Your task to perform on an android device: see sites visited before in the chrome app Image 0: 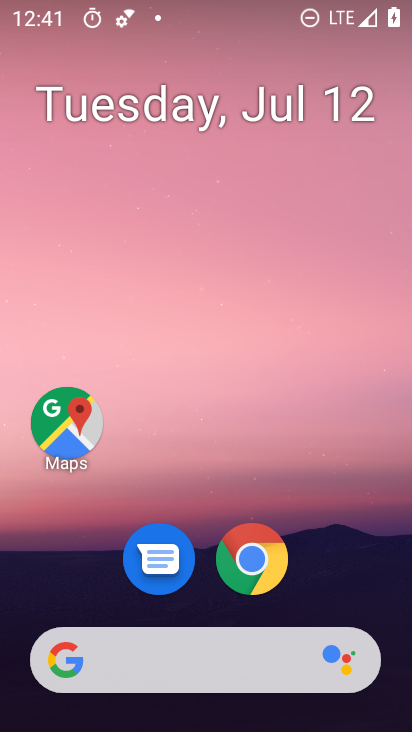
Step 0: click (265, 555)
Your task to perform on an android device: see sites visited before in the chrome app Image 1: 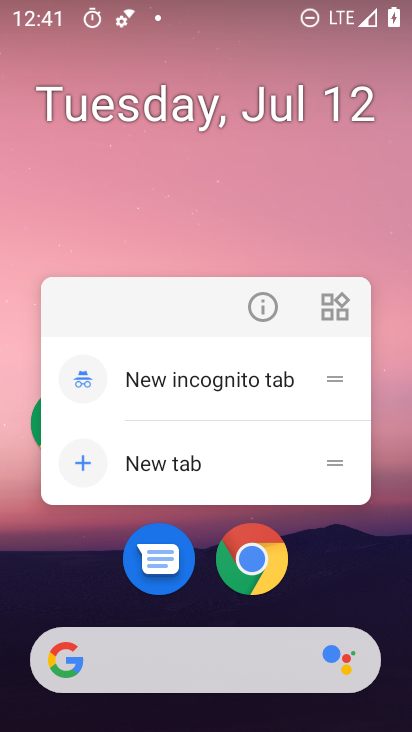
Step 1: click (266, 559)
Your task to perform on an android device: see sites visited before in the chrome app Image 2: 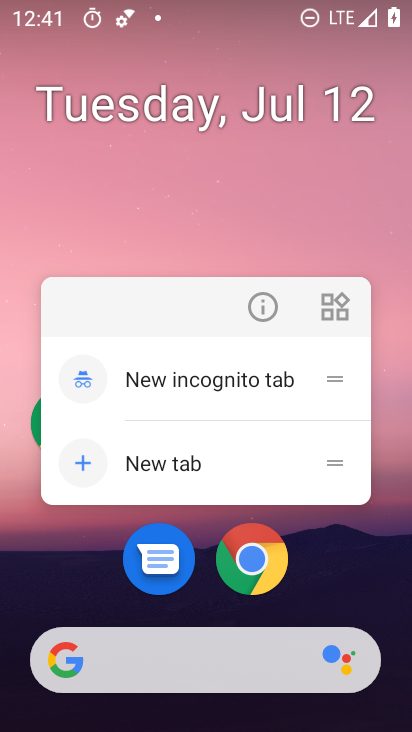
Step 2: click (255, 558)
Your task to perform on an android device: see sites visited before in the chrome app Image 3: 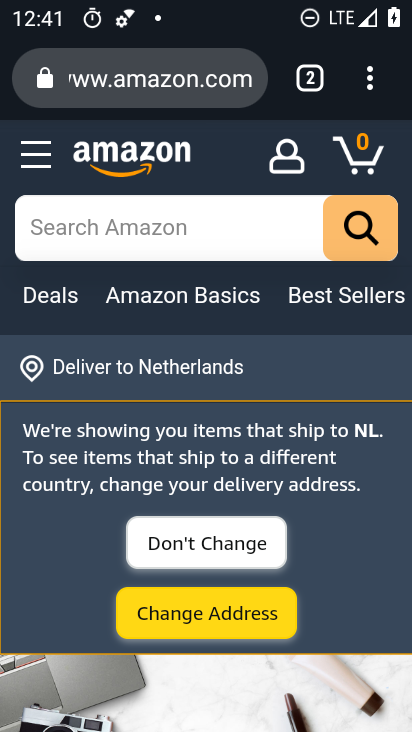
Step 3: task complete